Your task to perform on an android device: set an alarm Image 0: 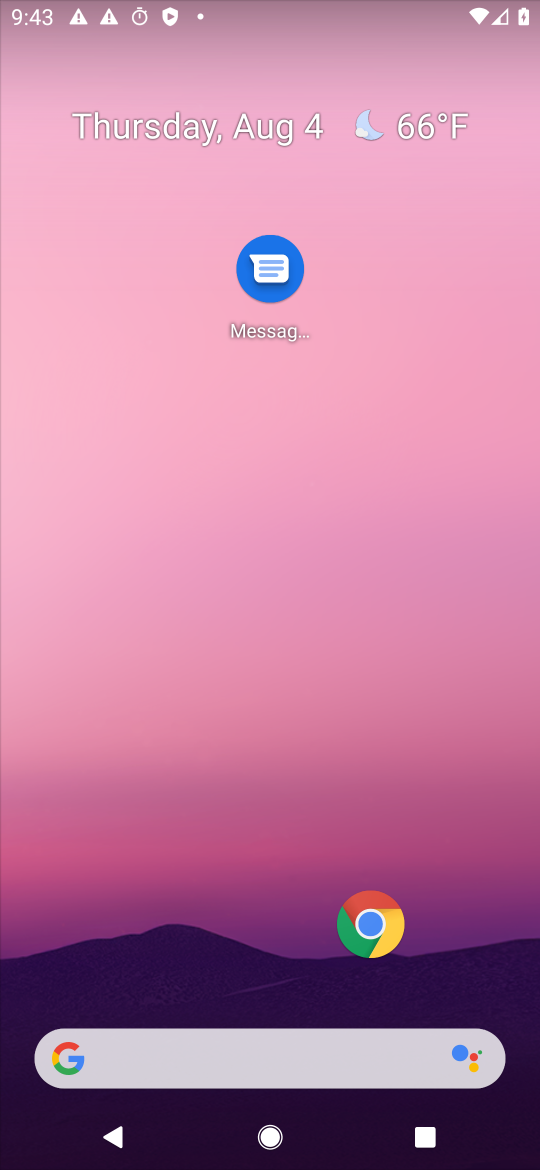
Step 0: click (252, 329)
Your task to perform on an android device: set an alarm Image 1: 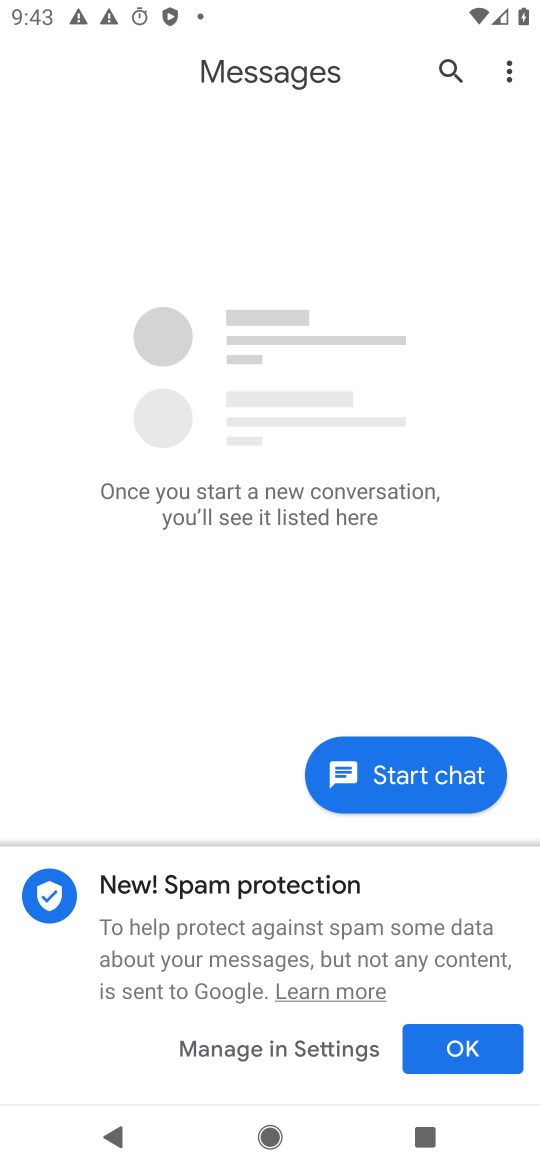
Step 1: drag from (270, 926) to (275, 148)
Your task to perform on an android device: set an alarm Image 2: 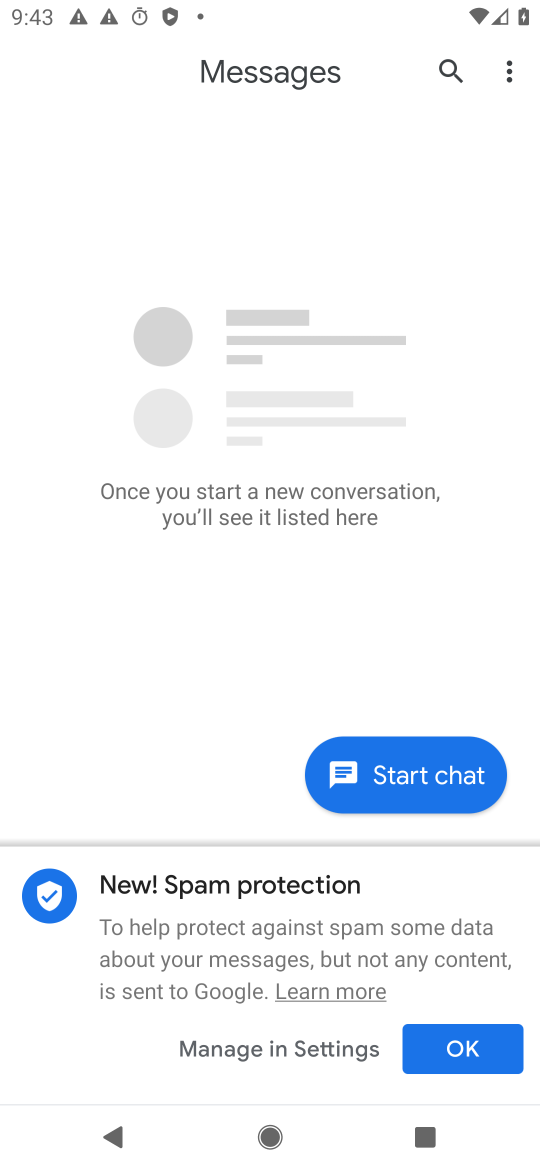
Step 2: drag from (325, 696) to (395, 204)
Your task to perform on an android device: set an alarm Image 3: 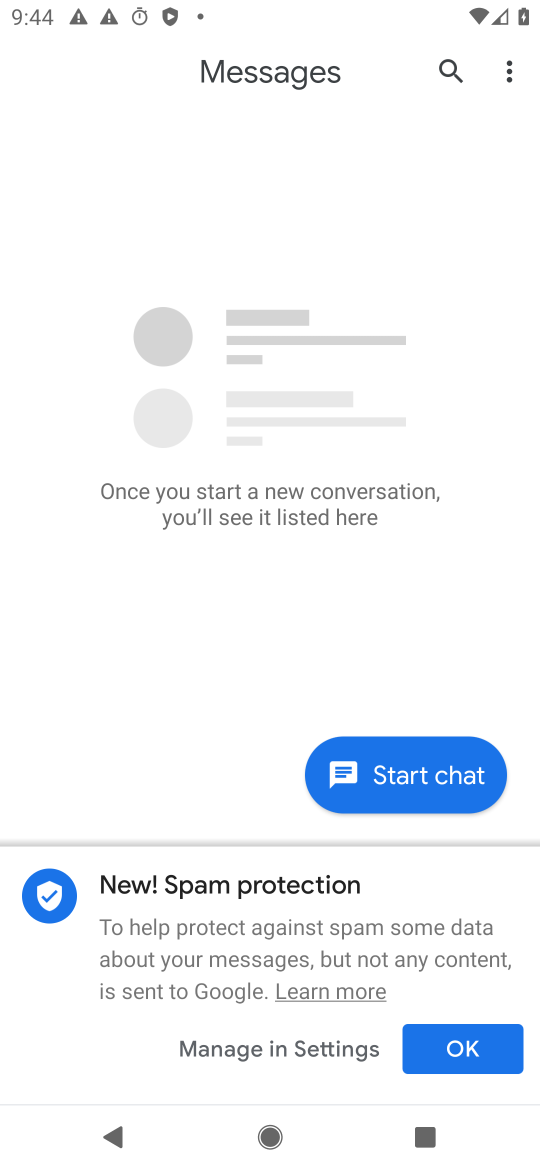
Step 3: drag from (251, 706) to (317, 297)
Your task to perform on an android device: set an alarm Image 4: 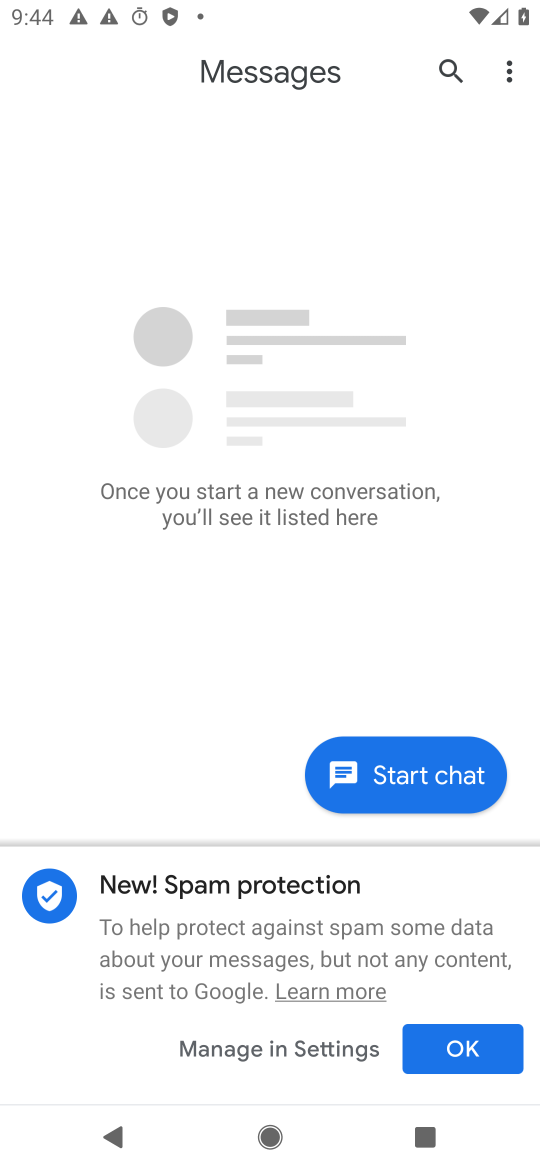
Step 4: drag from (284, 545) to (329, 25)
Your task to perform on an android device: set an alarm Image 5: 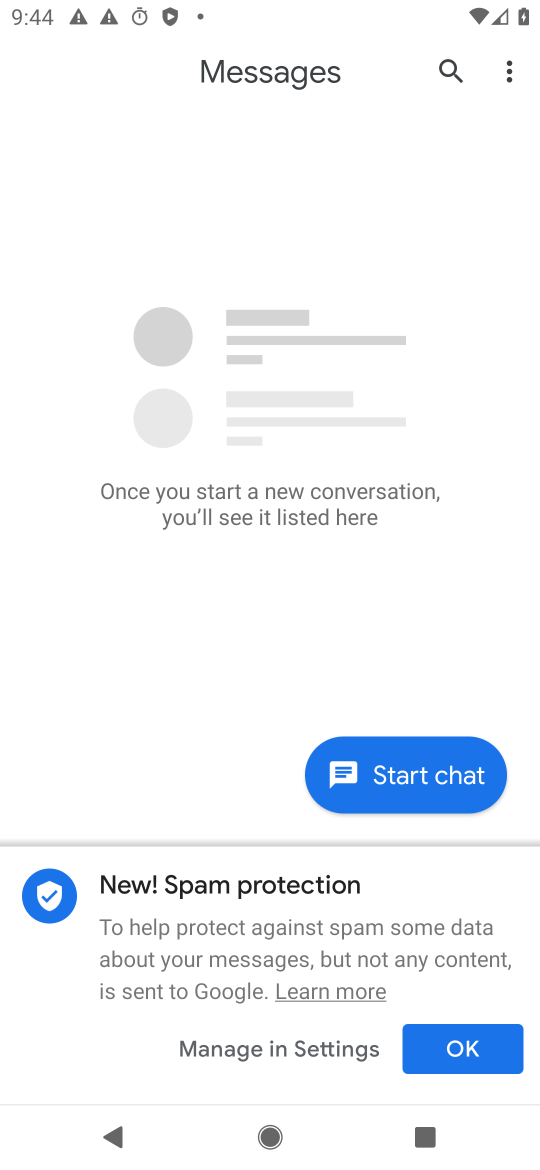
Step 5: drag from (247, 836) to (326, 218)
Your task to perform on an android device: set an alarm Image 6: 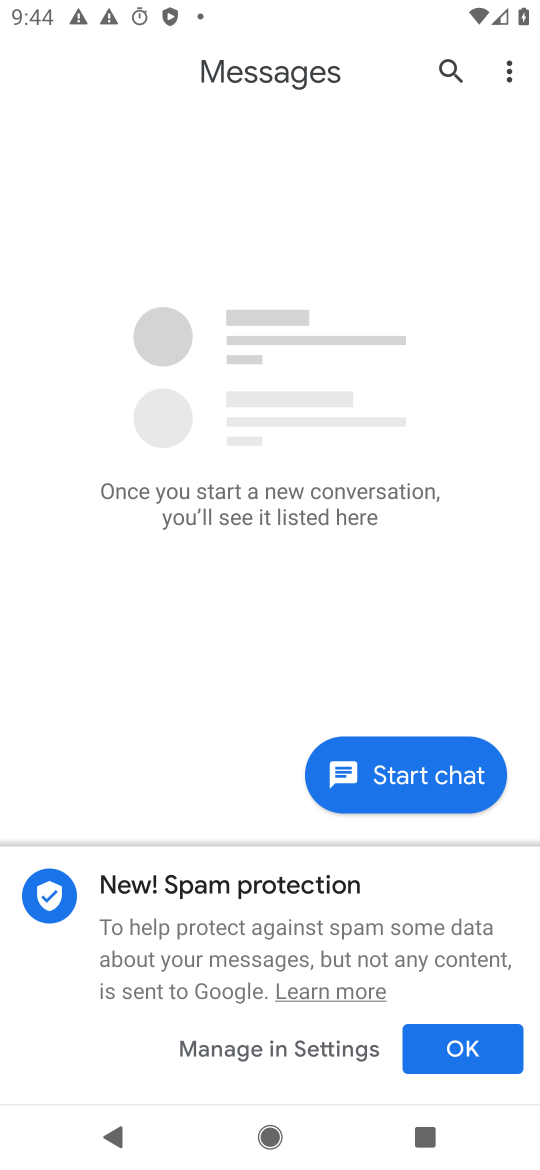
Step 6: drag from (265, 971) to (338, 521)
Your task to perform on an android device: set an alarm Image 7: 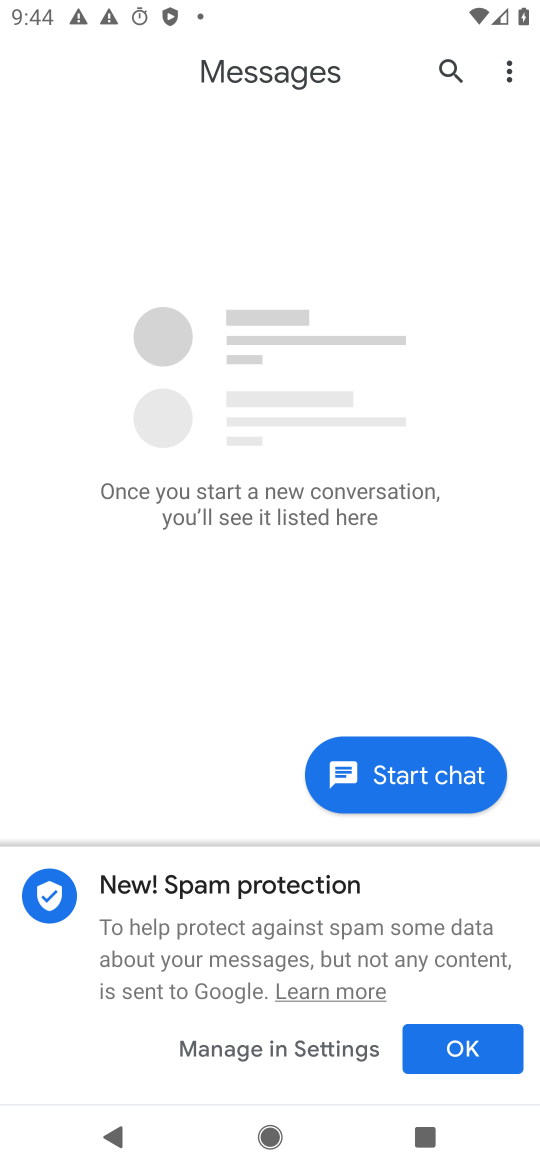
Step 7: press home button
Your task to perform on an android device: set an alarm Image 8: 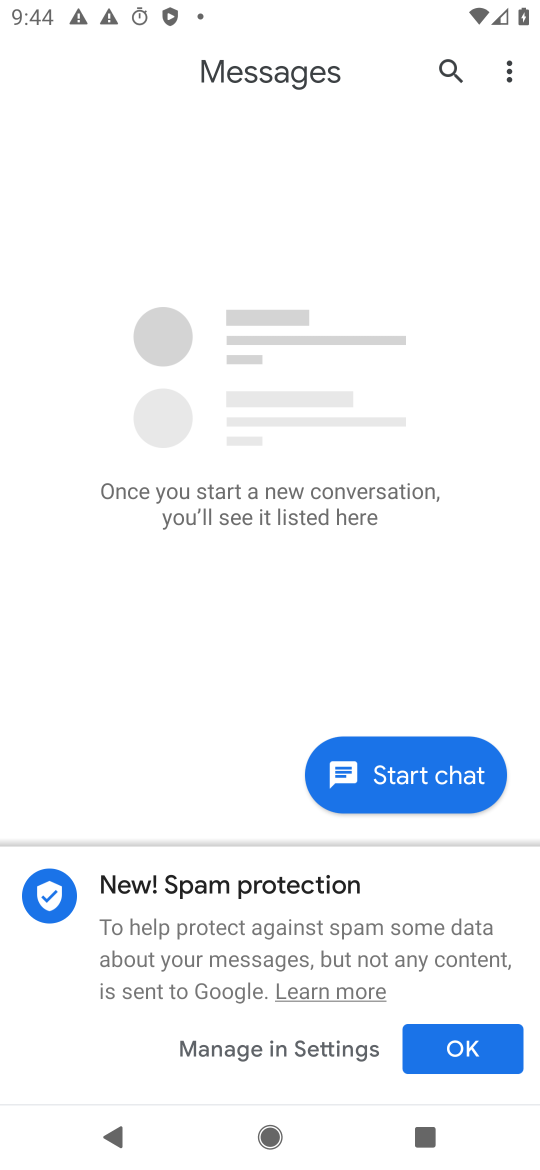
Step 8: drag from (225, 760) to (363, 30)
Your task to perform on an android device: set an alarm Image 9: 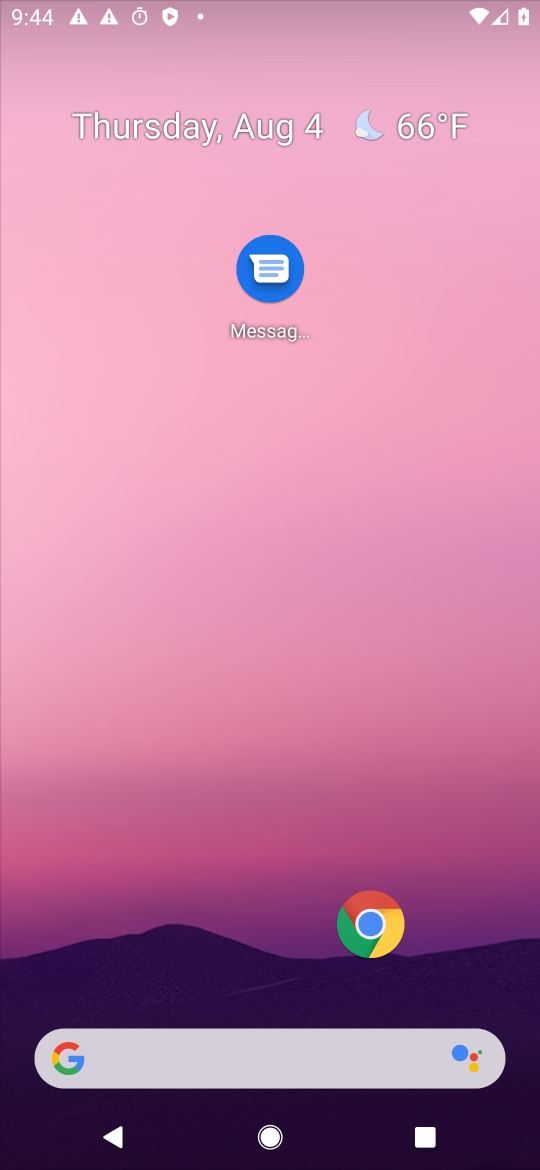
Step 9: drag from (224, 948) to (339, 39)
Your task to perform on an android device: set an alarm Image 10: 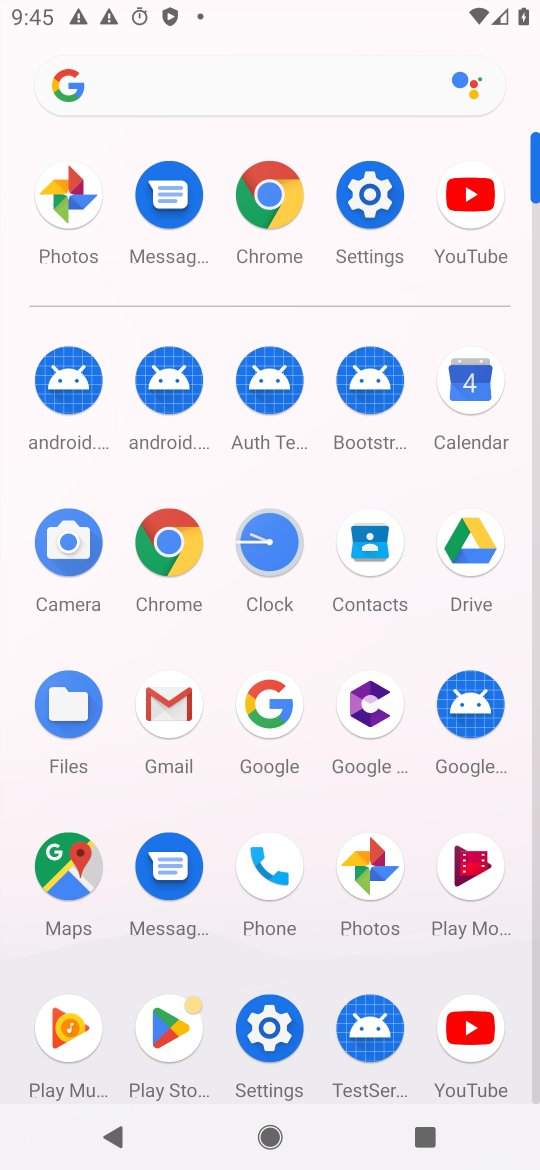
Step 10: click (260, 566)
Your task to perform on an android device: set an alarm Image 11: 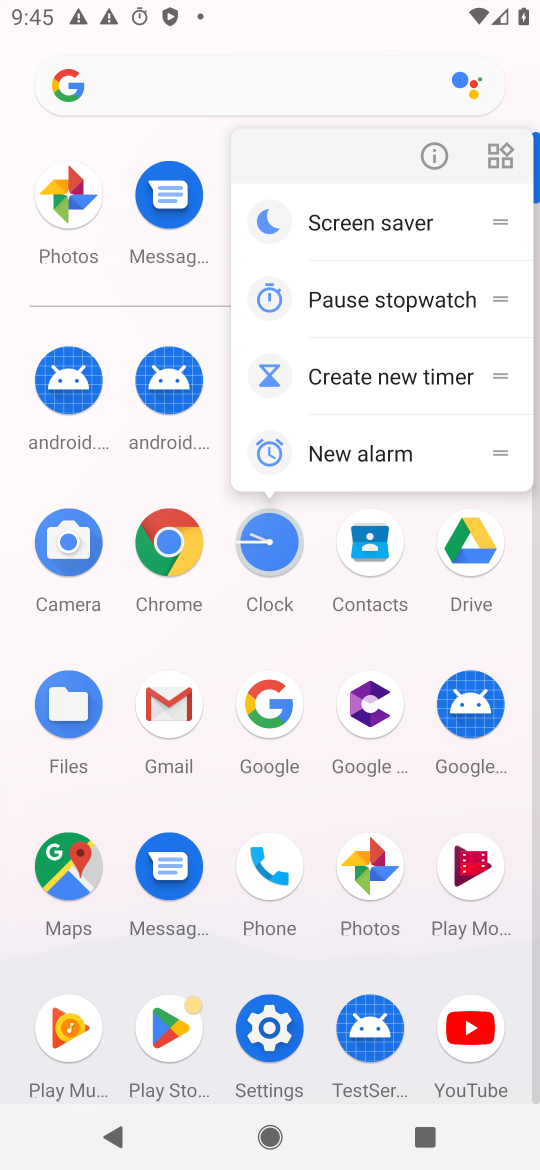
Step 11: click (431, 156)
Your task to perform on an android device: set an alarm Image 12: 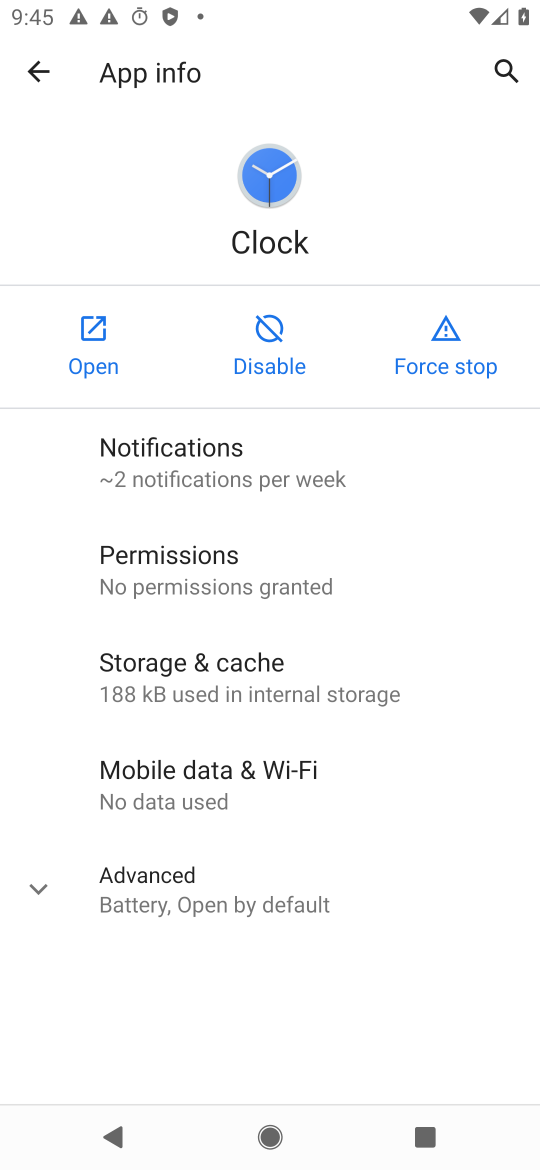
Step 12: click (113, 322)
Your task to perform on an android device: set an alarm Image 13: 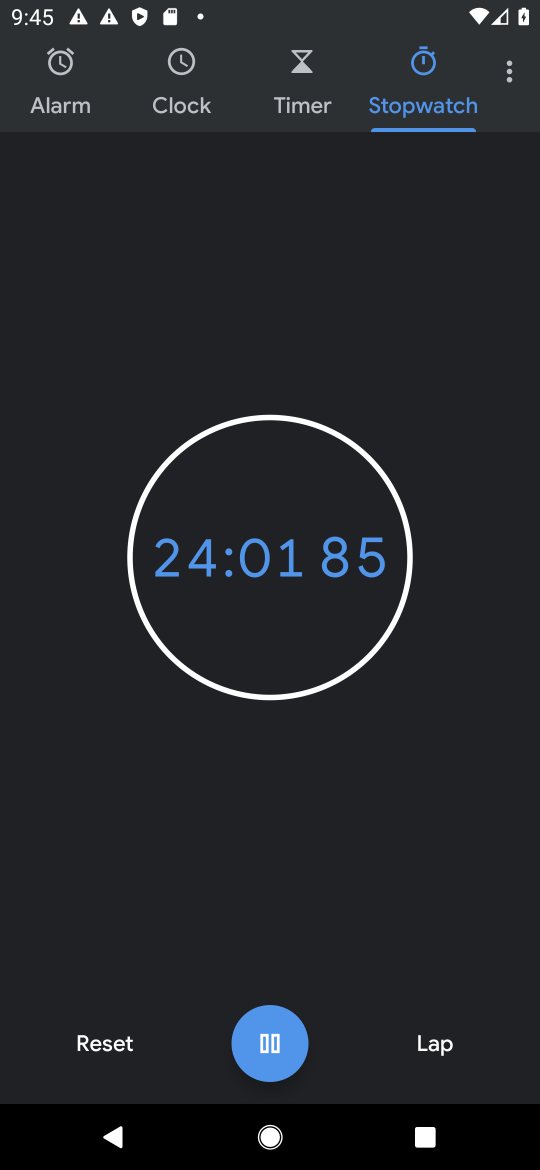
Step 13: click (88, 0)
Your task to perform on an android device: set an alarm Image 14: 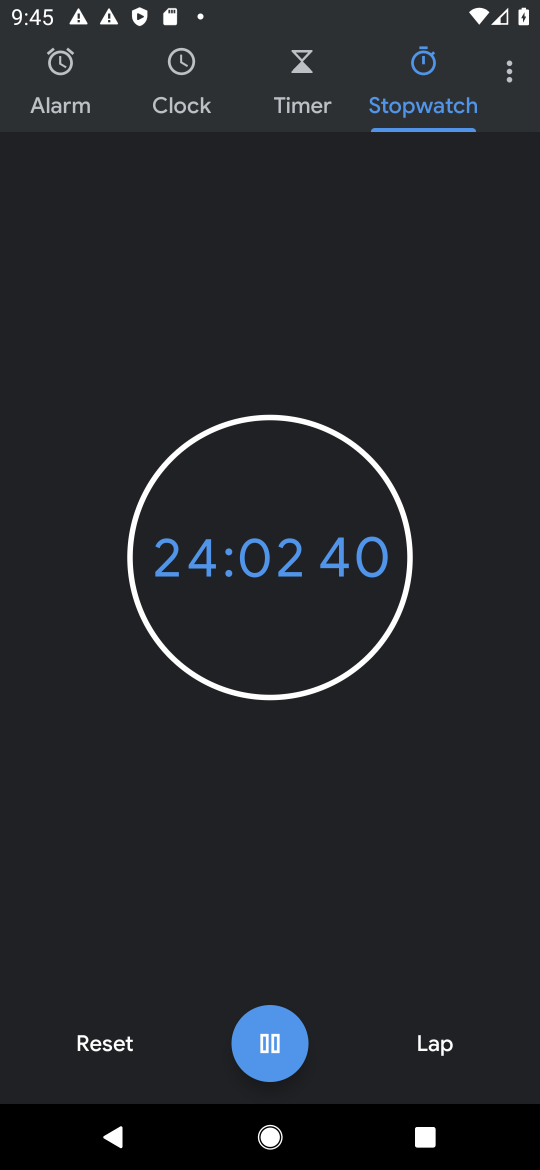
Step 14: click (46, 59)
Your task to perform on an android device: set an alarm Image 15: 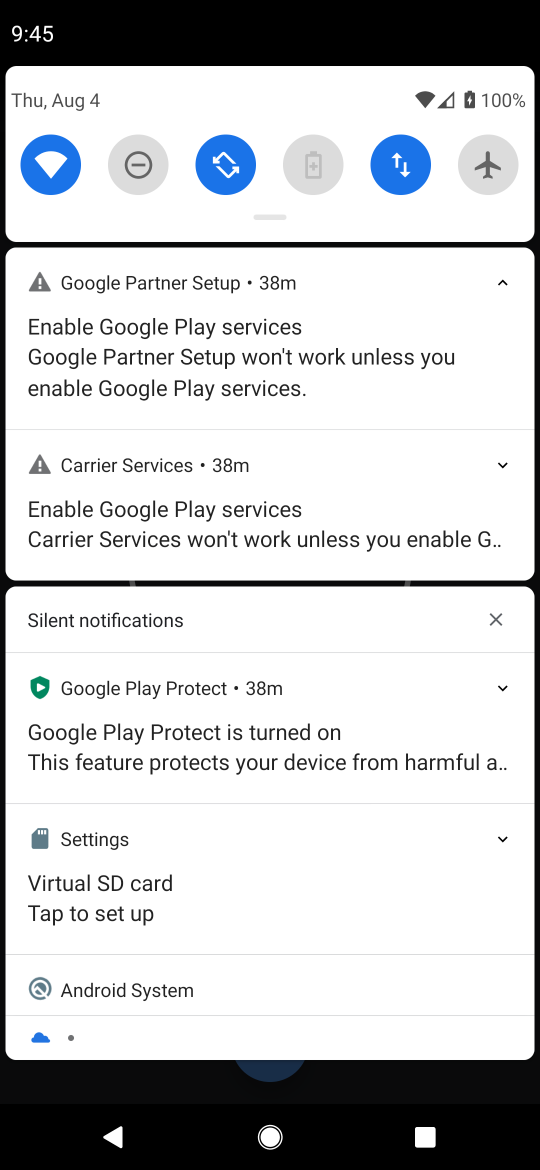
Step 15: press back button
Your task to perform on an android device: set an alarm Image 16: 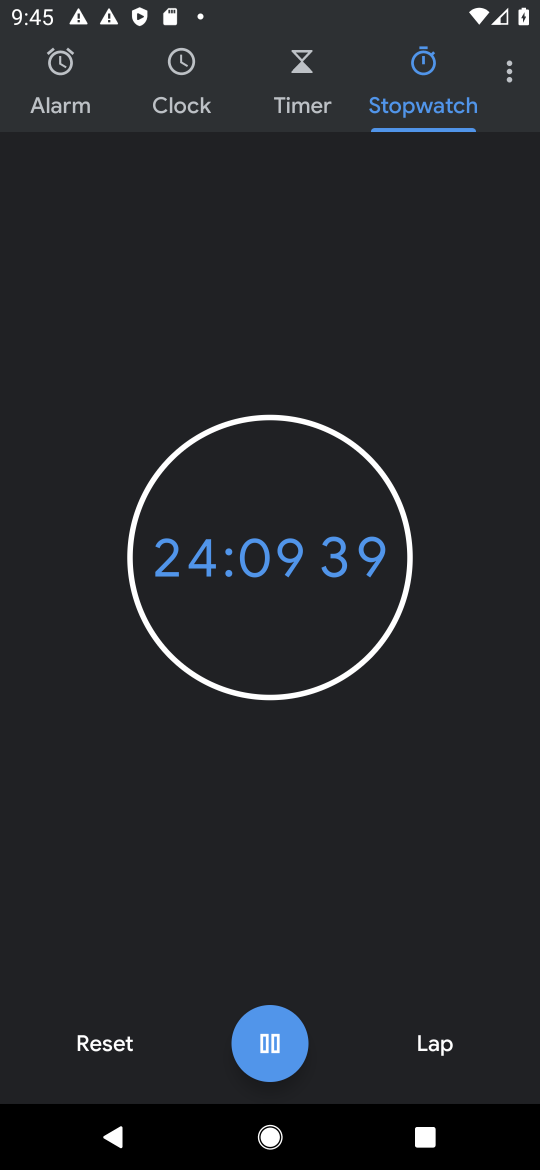
Step 16: click (61, 86)
Your task to perform on an android device: set an alarm Image 17: 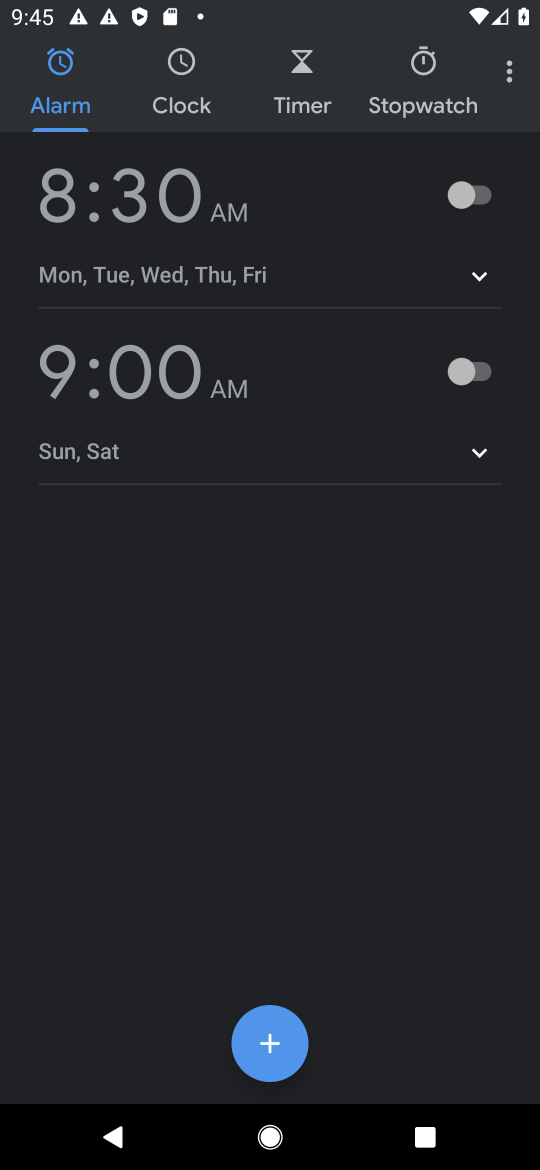
Step 17: click (477, 184)
Your task to perform on an android device: set an alarm Image 18: 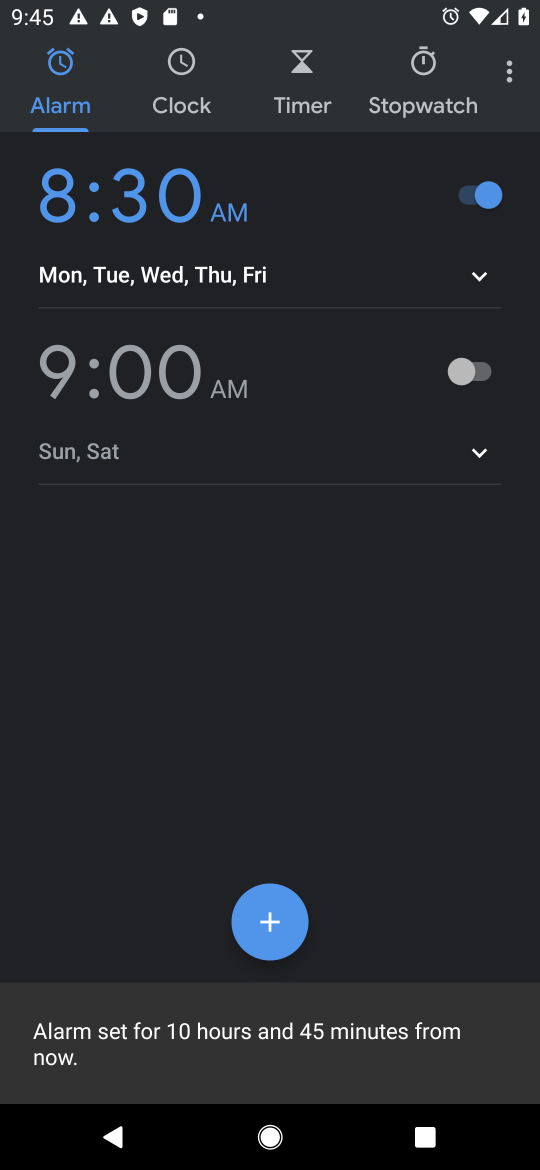
Step 18: task complete